Your task to perform on an android device: see sites visited before in the chrome app Image 0: 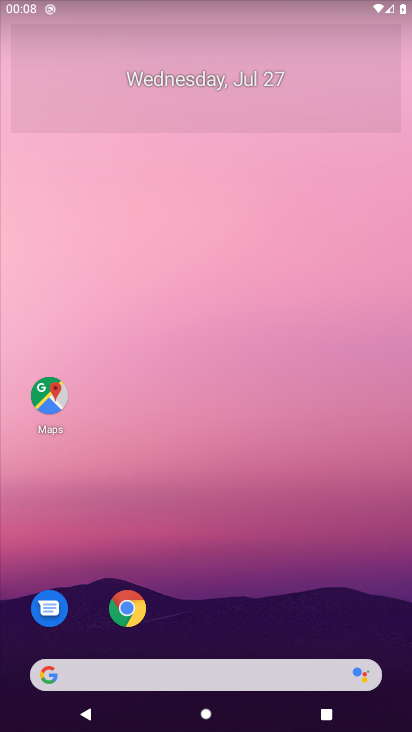
Step 0: press home button
Your task to perform on an android device: see sites visited before in the chrome app Image 1: 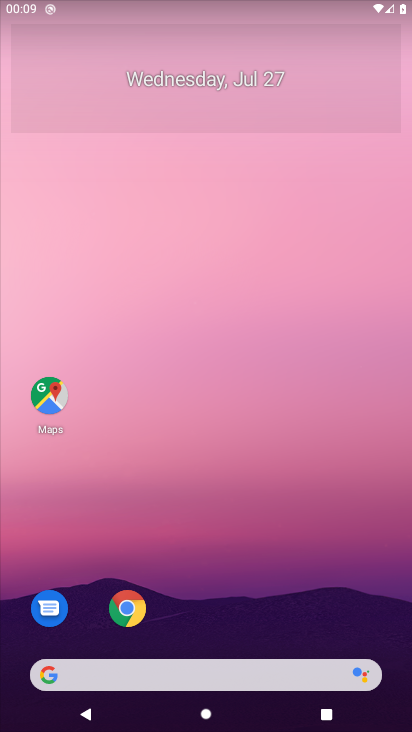
Step 1: click (116, 609)
Your task to perform on an android device: see sites visited before in the chrome app Image 2: 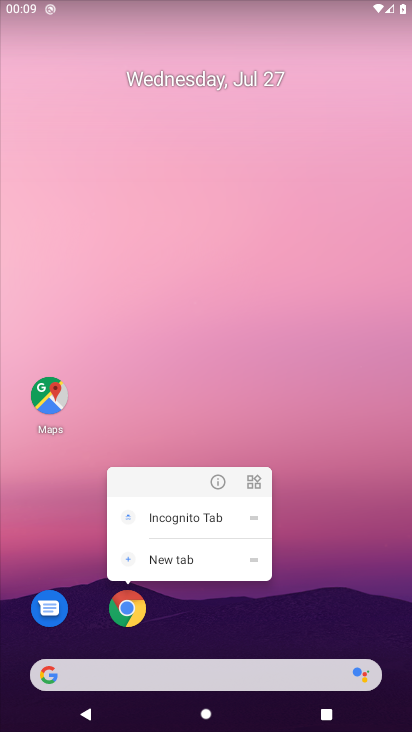
Step 2: click (128, 610)
Your task to perform on an android device: see sites visited before in the chrome app Image 3: 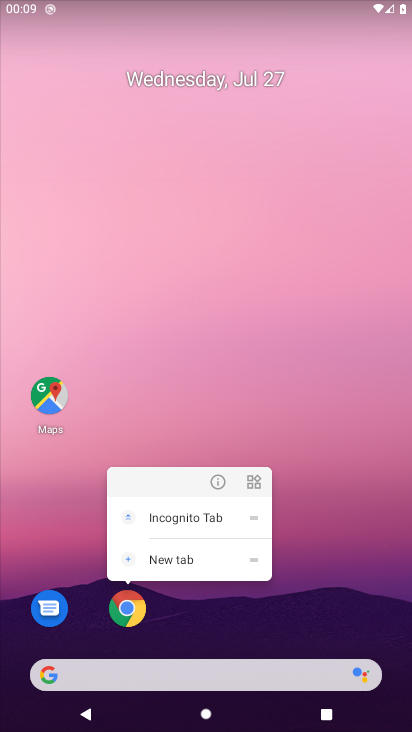
Step 3: click (120, 610)
Your task to perform on an android device: see sites visited before in the chrome app Image 4: 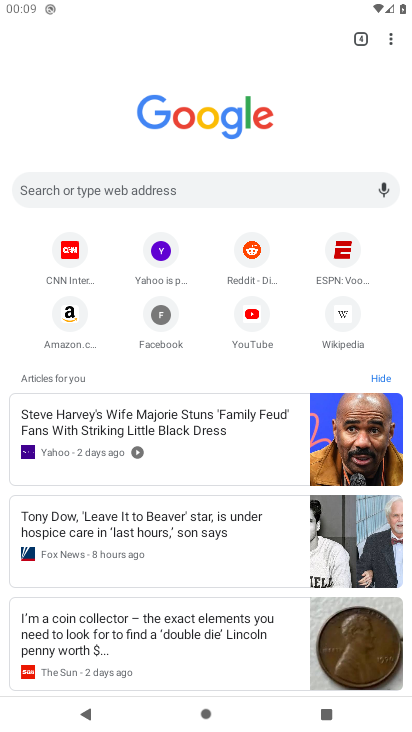
Step 4: task complete